Your task to perform on an android device: open sync settings in chrome Image 0: 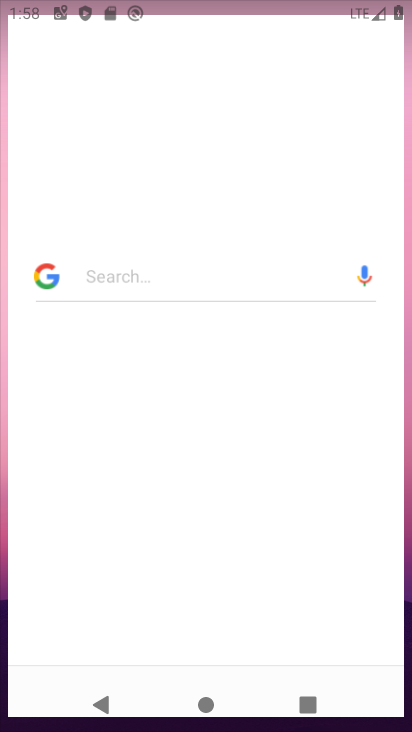
Step 0: drag from (206, 605) to (243, 142)
Your task to perform on an android device: open sync settings in chrome Image 1: 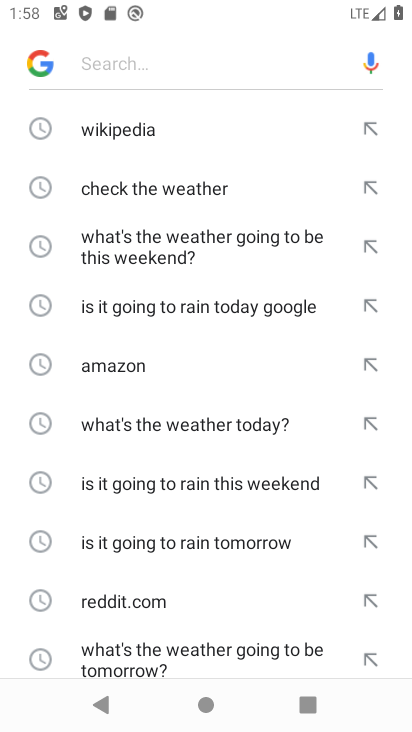
Step 1: press home button
Your task to perform on an android device: open sync settings in chrome Image 2: 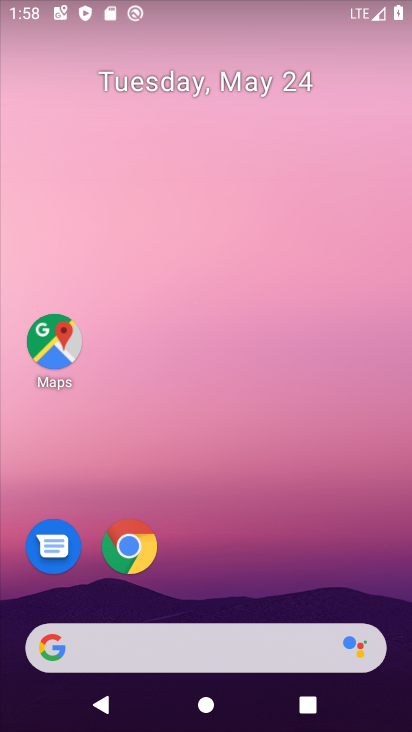
Step 2: drag from (189, 584) to (195, 170)
Your task to perform on an android device: open sync settings in chrome Image 3: 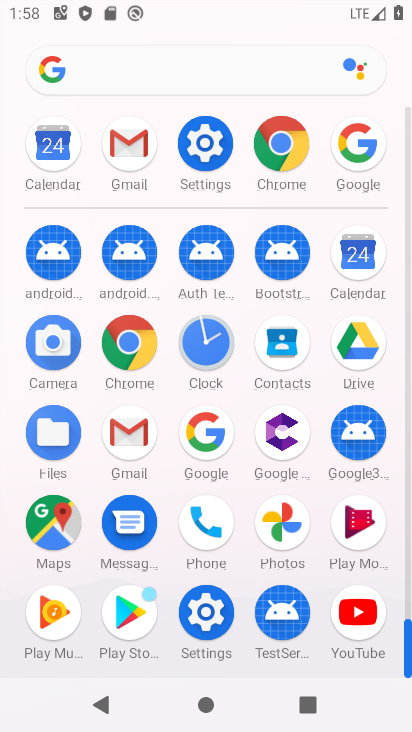
Step 3: click (124, 343)
Your task to perform on an android device: open sync settings in chrome Image 4: 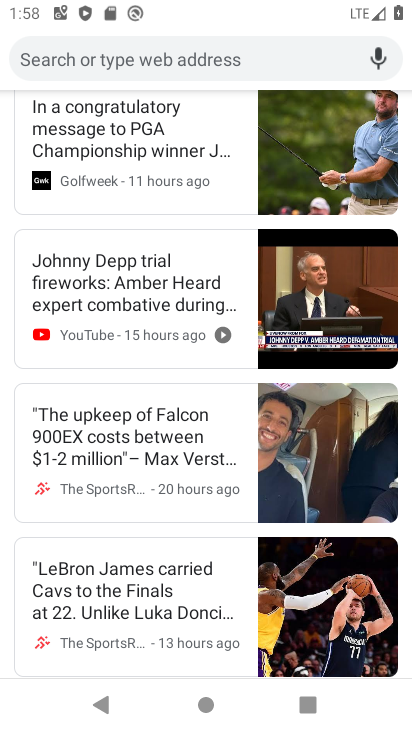
Step 4: drag from (213, 219) to (247, 680)
Your task to perform on an android device: open sync settings in chrome Image 5: 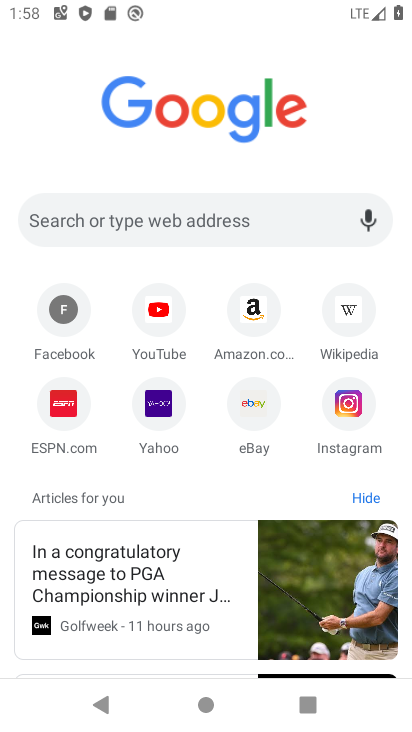
Step 5: drag from (354, 99) to (383, 290)
Your task to perform on an android device: open sync settings in chrome Image 6: 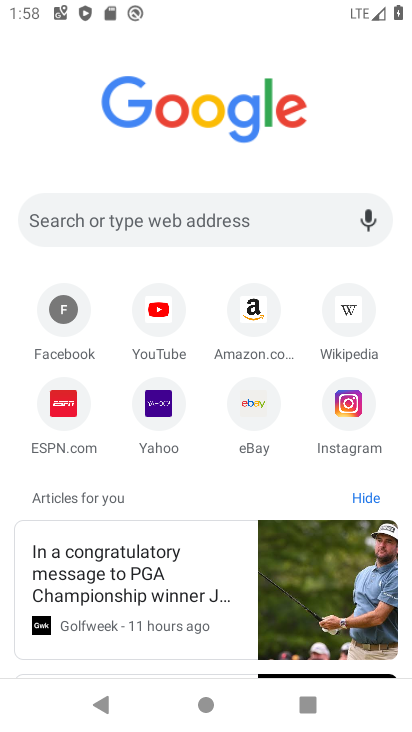
Step 6: drag from (274, 158) to (285, 321)
Your task to perform on an android device: open sync settings in chrome Image 7: 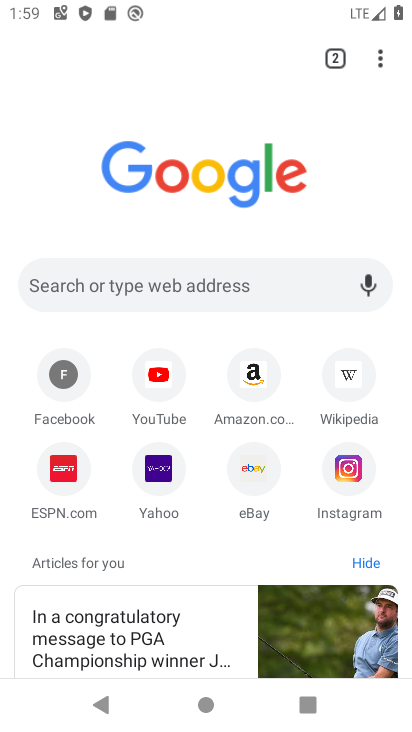
Step 7: click (384, 64)
Your task to perform on an android device: open sync settings in chrome Image 8: 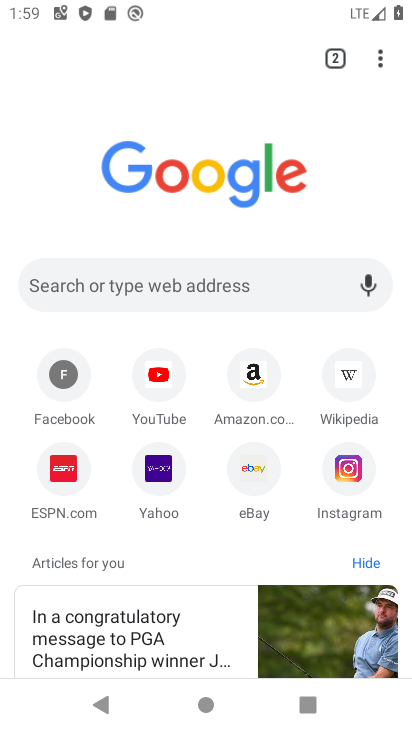
Step 8: click (383, 59)
Your task to perform on an android device: open sync settings in chrome Image 9: 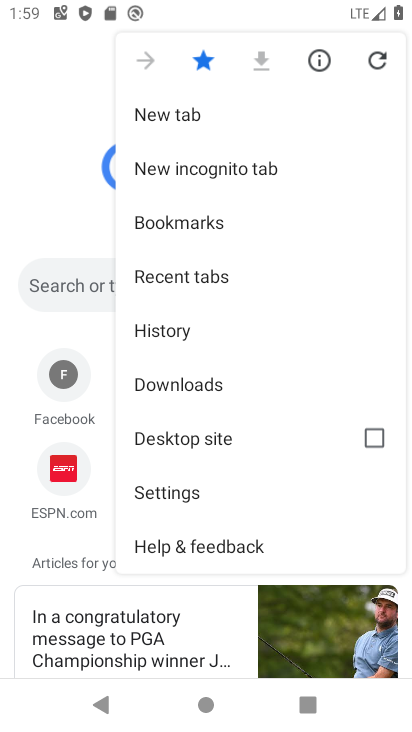
Step 9: click (185, 483)
Your task to perform on an android device: open sync settings in chrome Image 10: 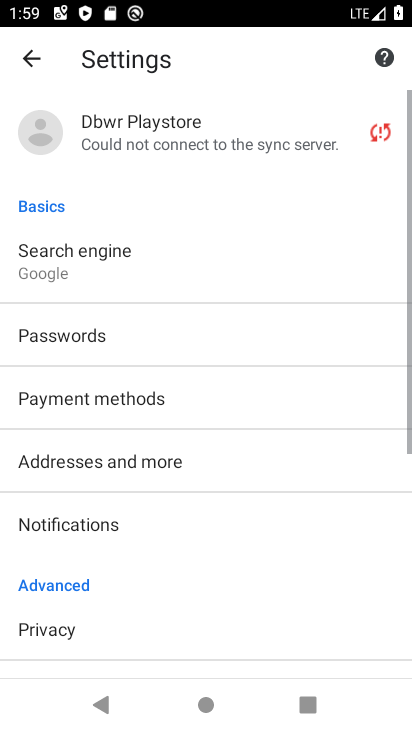
Step 10: drag from (167, 587) to (302, 113)
Your task to perform on an android device: open sync settings in chrome Image 11: 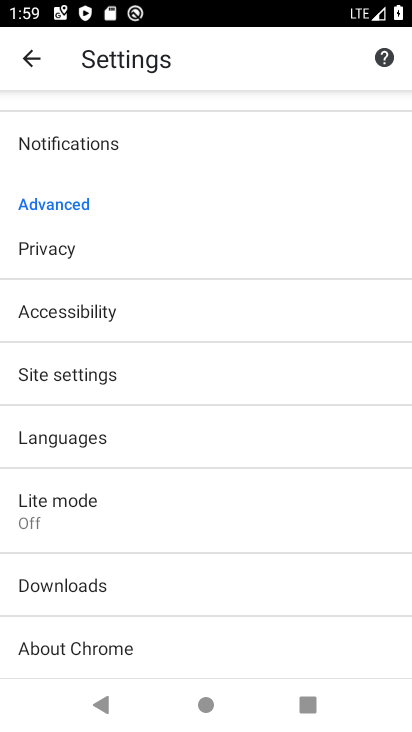
Step 11: click (85, 378)
Your task to perform on an android device: open sync settings in chrome Image 12: 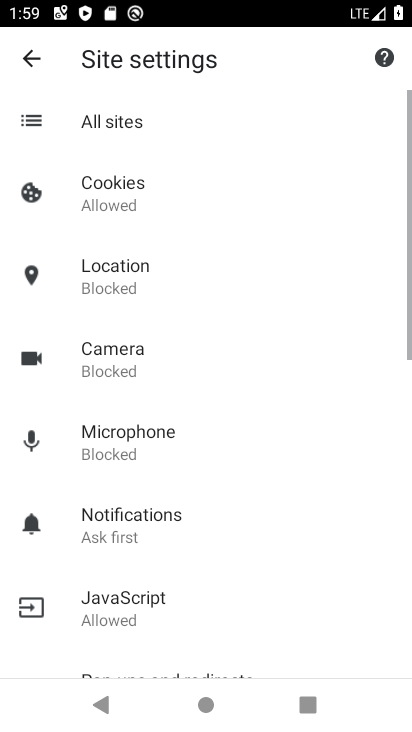
Step 12: drag from (184, 518) to (254, 251)
Your task to perform on an android device: open sync settings in chrome Image 13: 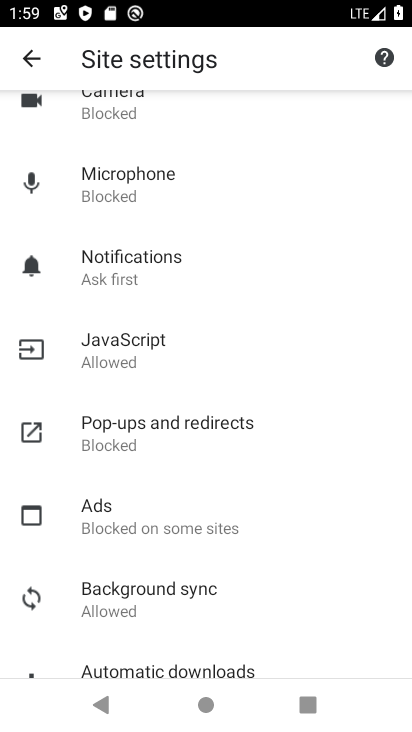
Step 13: click (144, 598)
Your task to perform on an android device: open sync settings in chrome Image 14: 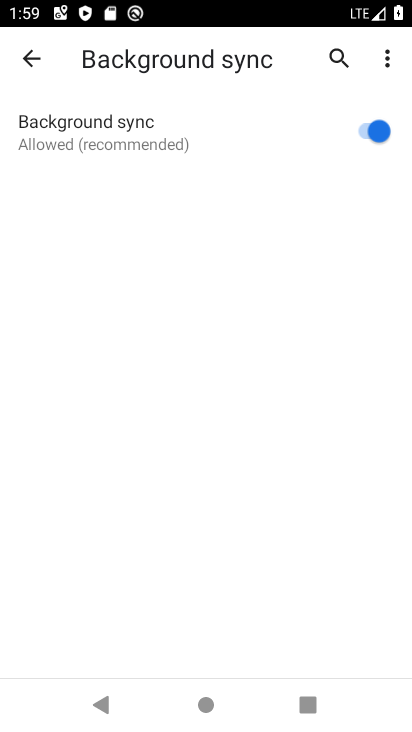
Step 14: task complete